Your task to perform on an android device: What is the news today? Image 0: 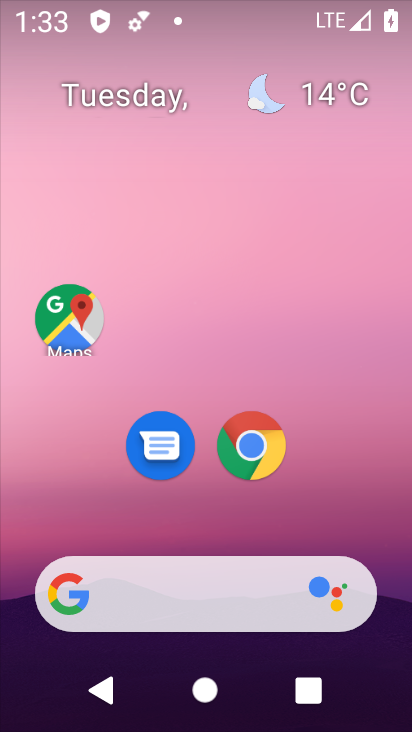
Step 0: click (243, 424)
Your task to perform on an android device: What is the news today? Image 1: 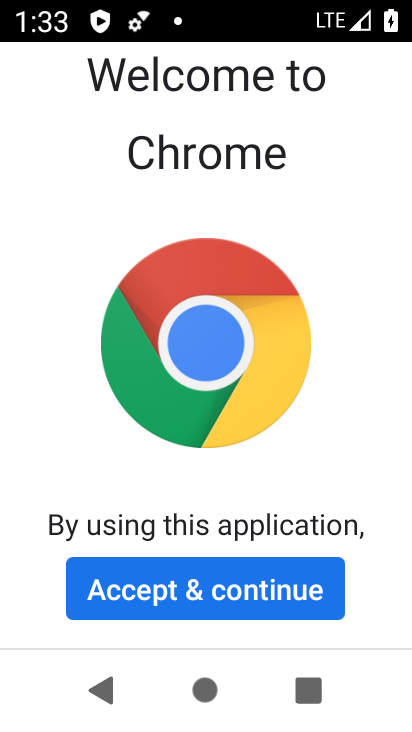
Step 1: click (293, 599)
Your task to perform on an android device: What is the news today? Image 2: 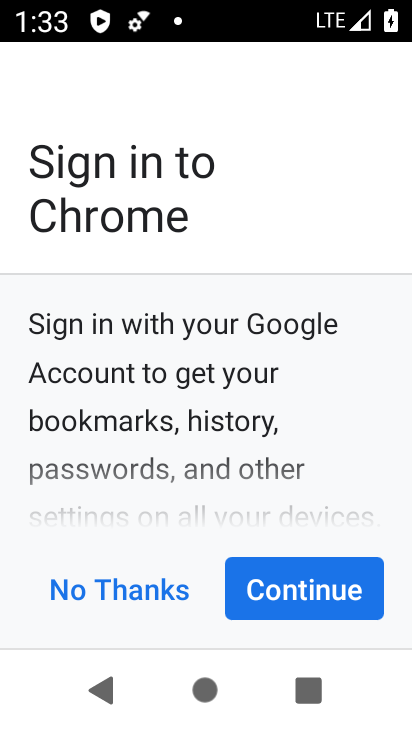
Step 2: click (280, 568)
Your task to perform on an android device: What is the news today? Image 3: 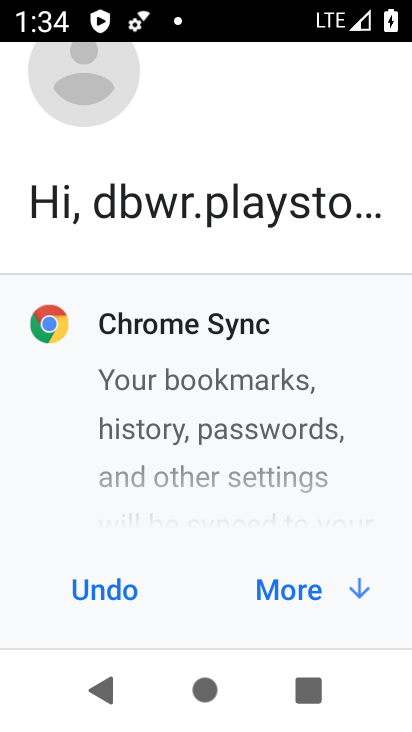
Step 3: click (308, 589)
Your task to perform on an android device: What is the news today? Image 4: 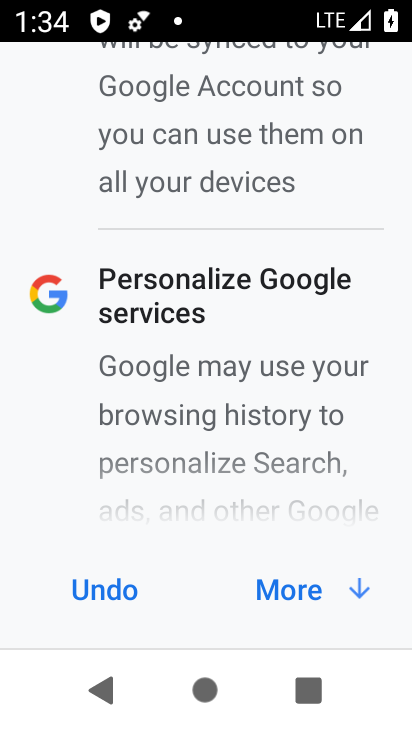
Step 4: click (308, 589)
Your task to perform on an android device: What is the news today? Image 5: 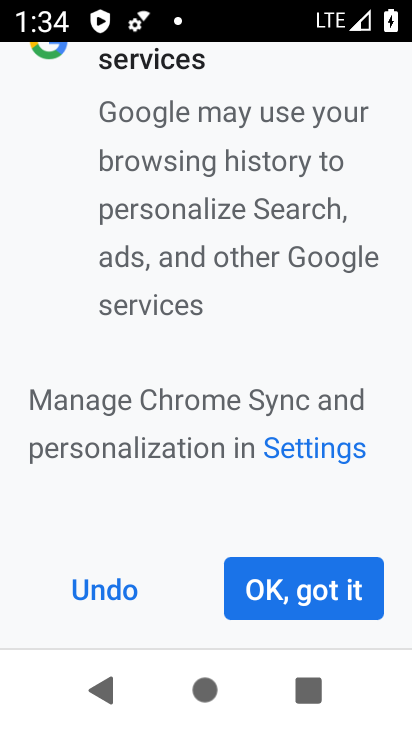
Step 5: click (281, 586)
Your task to perform on an android device: What is the news today? Image 6: 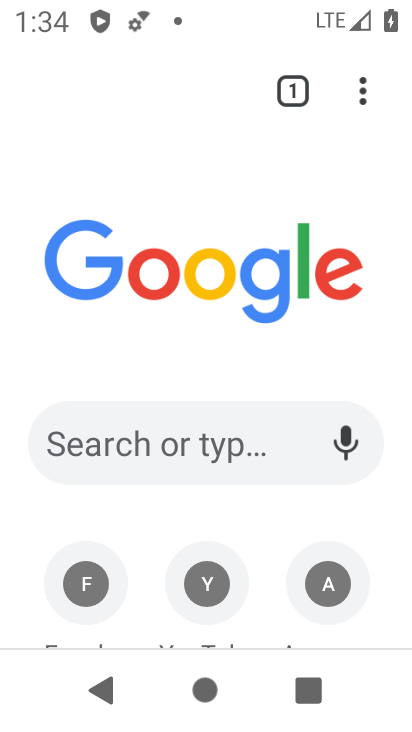
Step 6: click (190, 460)
Your task to perform on an android device: What is the news today? Image 7: 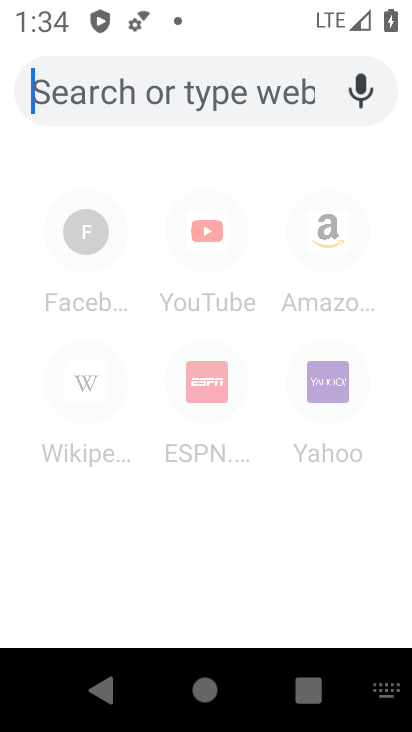
Step 7: type "news"
Your task to perform on an android device: What is the news today? Image 8: 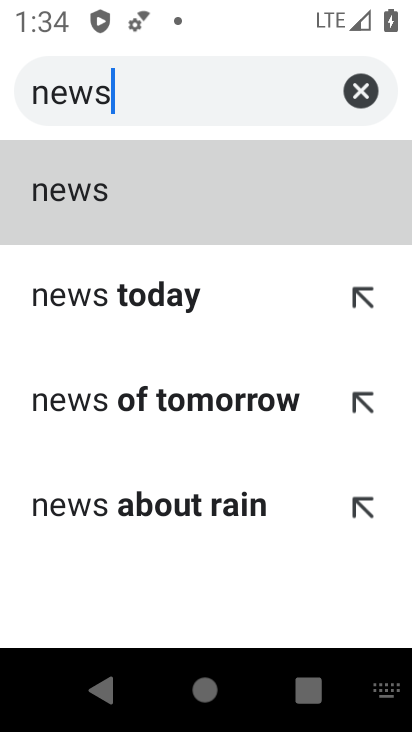
Step 8: click (115, 204)
Your task to perform on an android device: What is the news today? Image 9: 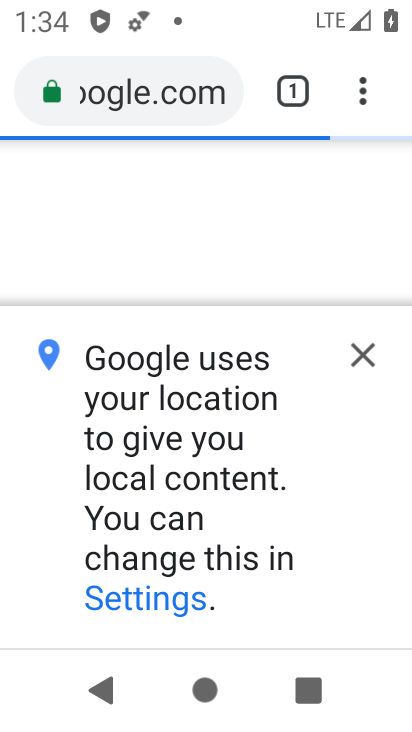
Step 9: click (365, 341)
Your task to perform on an android device: What is the news today? Image 10: 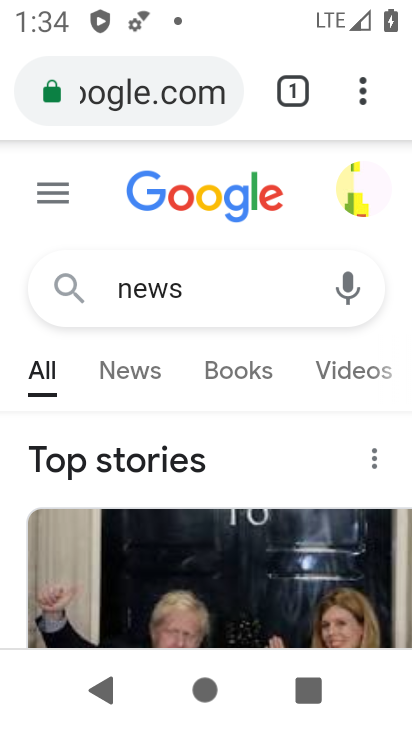
Step 10: task complete